Your task to perform on an android device: Go to network settings Image 0: 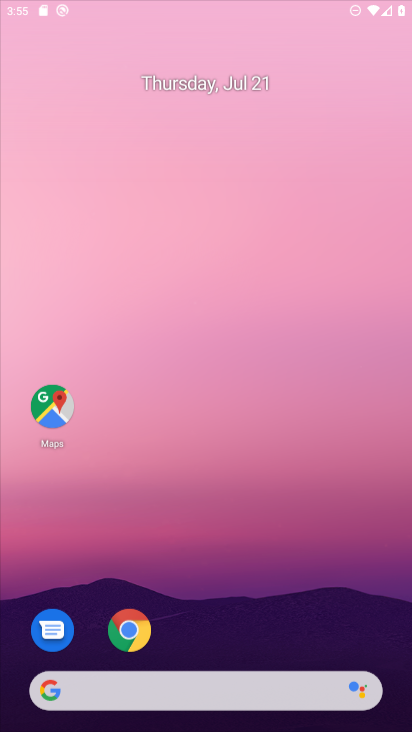
Step 0: click (196, 37)
Your task to perform on an android device: Go to network settings Image 1: 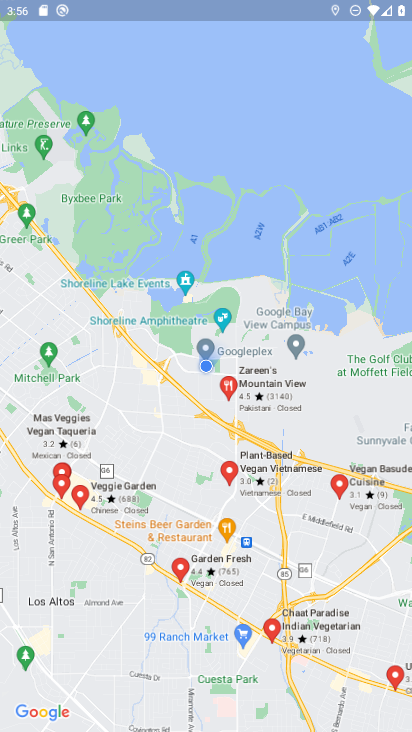
Step 1: press home button
Your task to perform on an android device: Go to network settings Image 2: 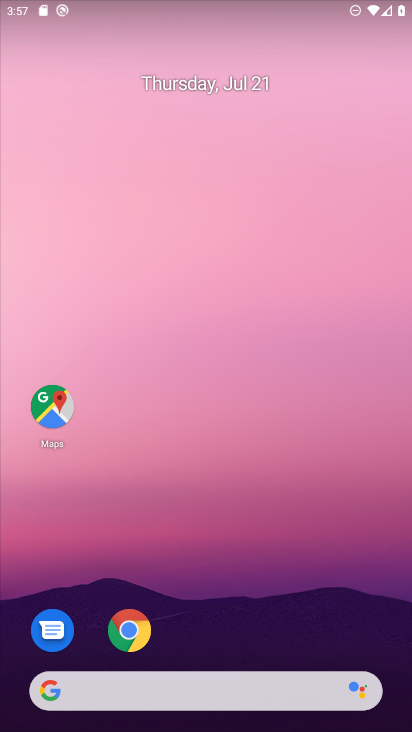
Step 2: drag from (207, 660) to (129, 181)
Your task to perform on an android device: Go to network settings Image 3: 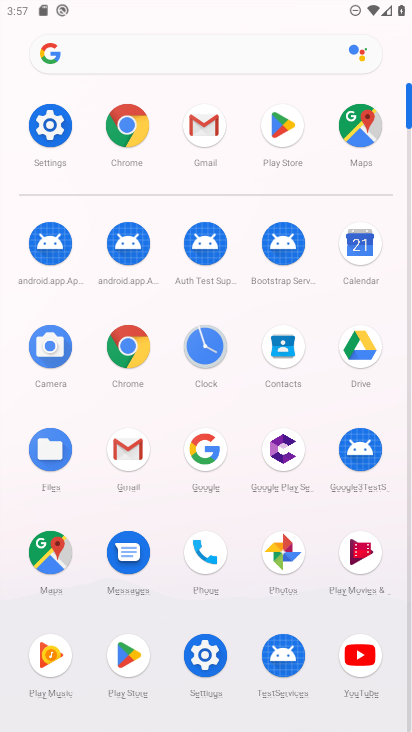
Step 3: click (210, 651)
Your task to perform on an android device: Go to network settings Image 4: 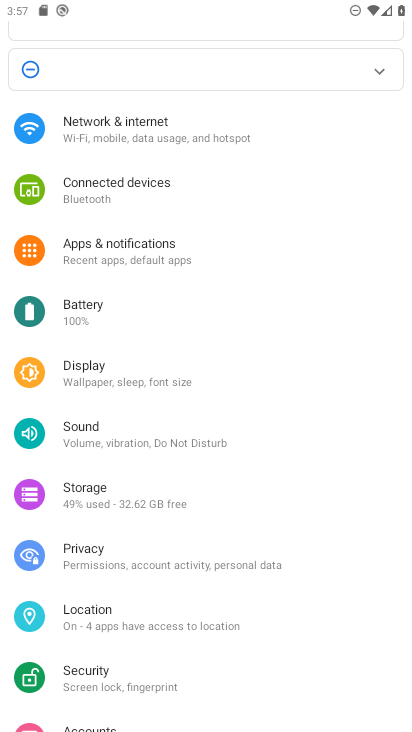
Step 4: click (121, 140)
Your task to perform on an android device: Go to network settings Image 5: 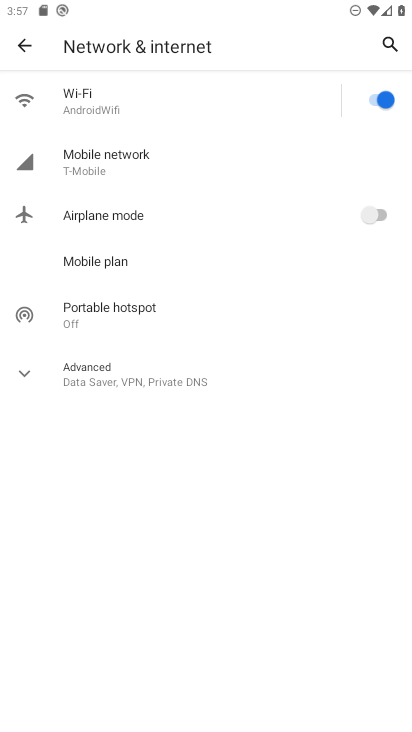
Step 5: click (174, 175)
Your task to perform on an android device: Go to network settings Image 6: 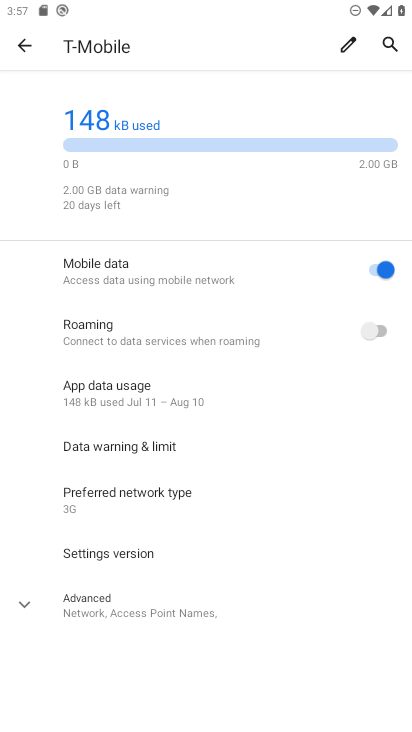
Step 6: task complete